Your task to perform on an android device: What's the weather going to be tomorrow? Image 0: 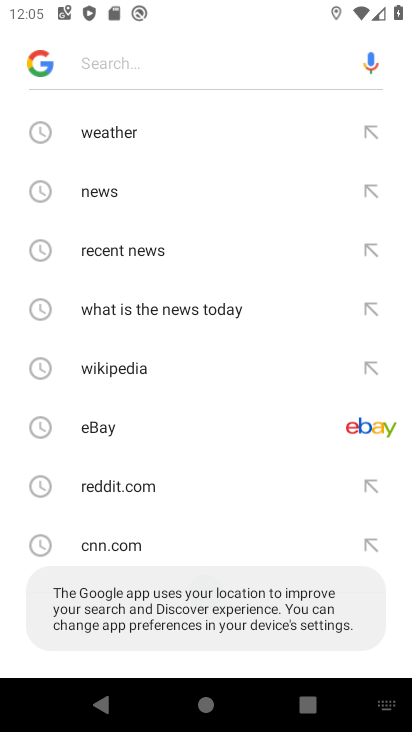
Step 0: press home button
Your task to perform on an android device: What's the weather going to be tomorrow? Image 1: 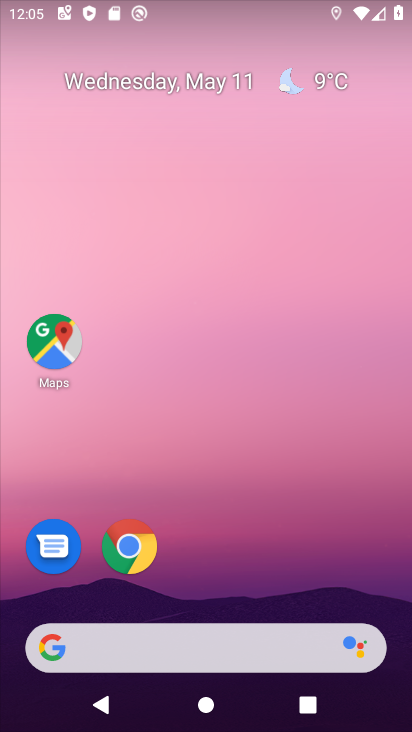
Step 1: click (329, 84)
Your task to perform on an android device: What's the weather going to be tomorrow? Image 2: 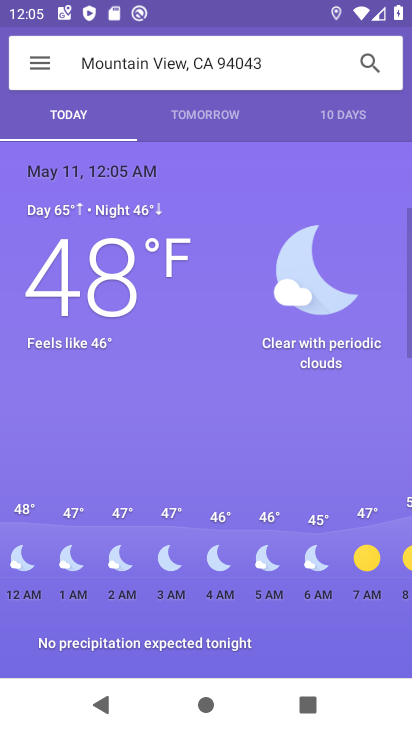
Step 2: click (196, 121)
Your task to perform on an android device: What's the weather going to be tomorrow? Image 3: 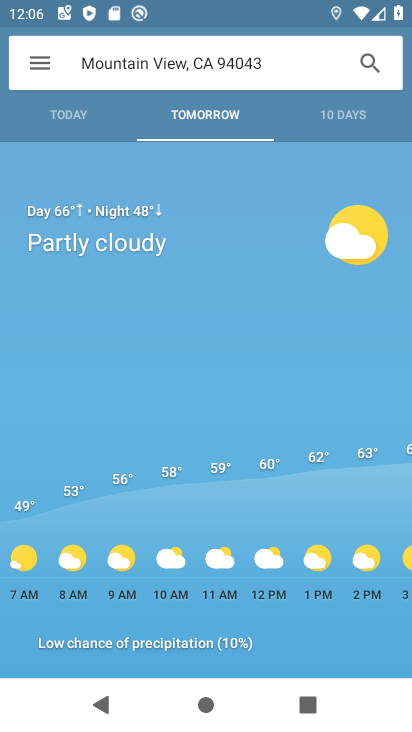
Step 3: task complete